Your task to perform on an android device: turn off airplane mode Image 0: 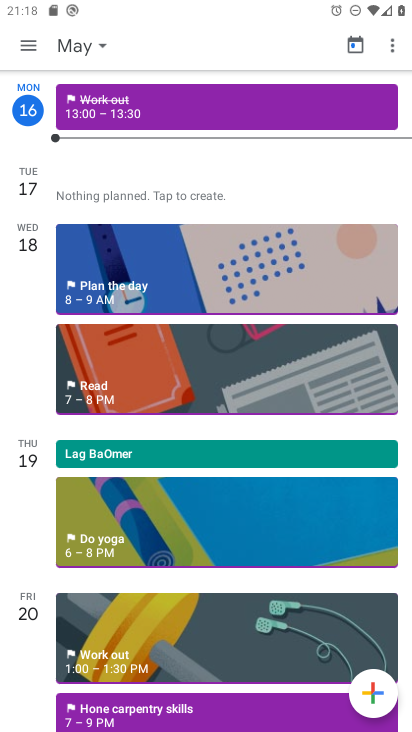
Step 0: press home button
Your task to perform on an android device: turn off airplane mode Image 1: 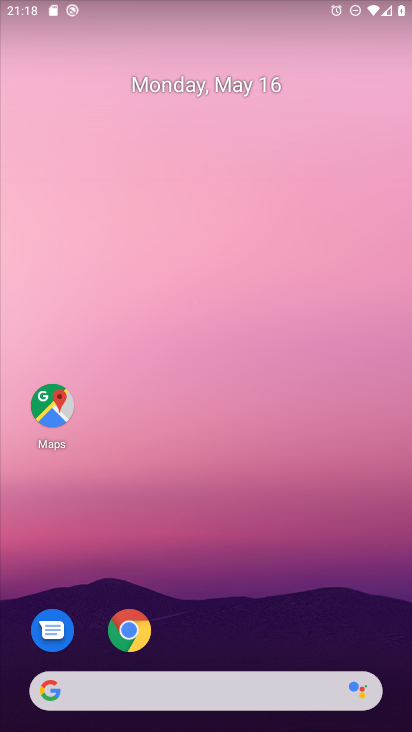
Step 1: drag from (202, 591) to (160, 183)
Your task to perform on an android device: turn off airplane mode Image 2: 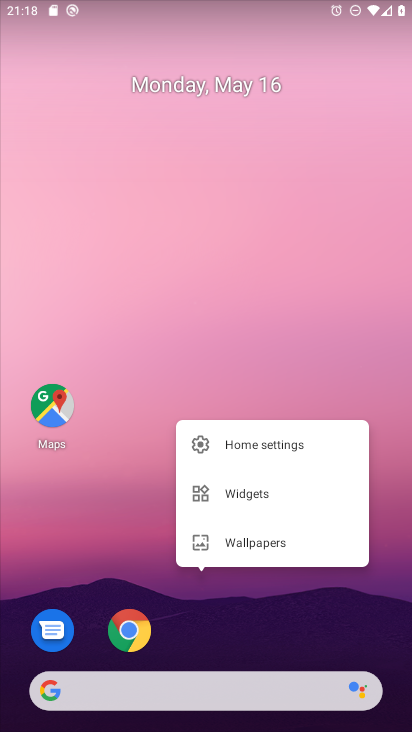
Step 2: click (137, 404)
Your task to perform on an android device: turn off airplane mode Image 3: 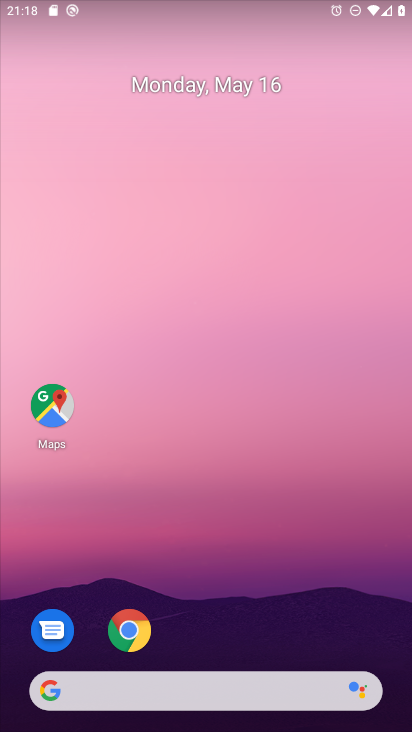
Step 3: drag from (137, 404) to (130, 43)
Your task to perform on an android device: turn off airplane mode Image 4: 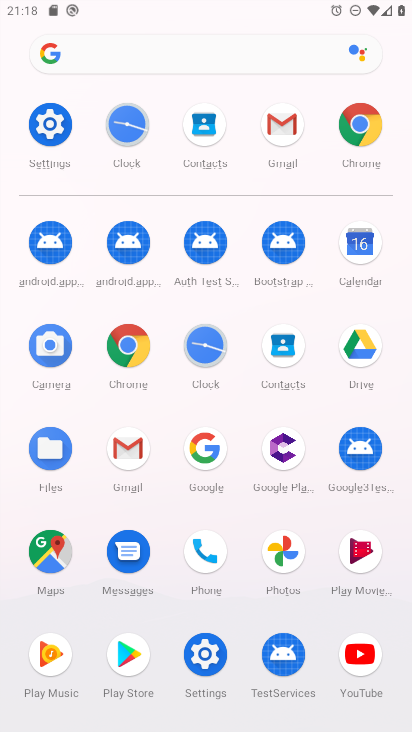
Step 4: click (53, 138)
Your task to perform on an android device: turn off airplane mode Image 5: 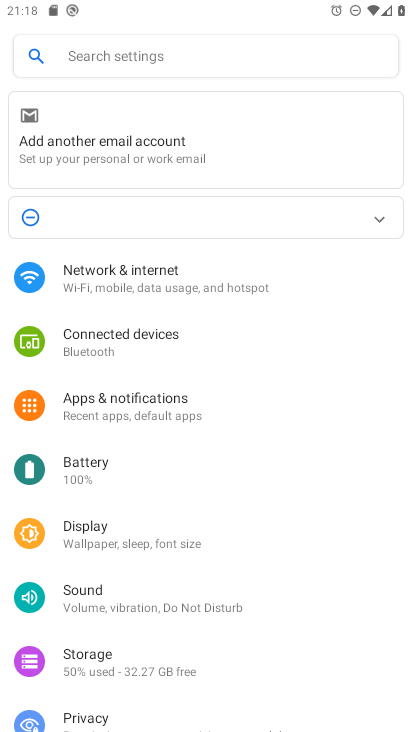
Step 5: click (168, 287)
Your task to perform on an android device: turn off airplane mode Image 6: 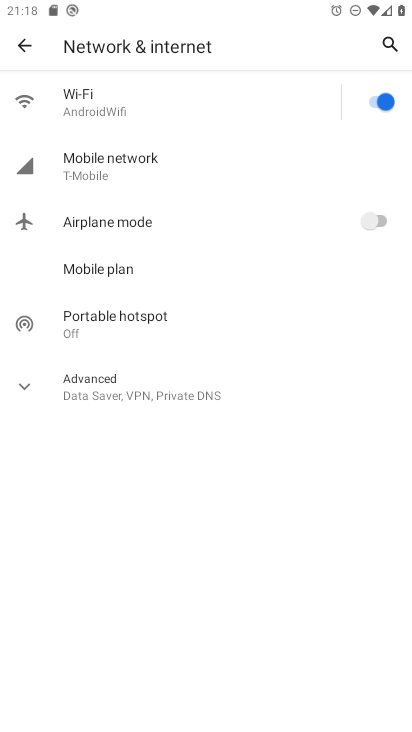
Step 6: task complete